Your task to perform on an android device: Open the Play Movies app and select the watchlist tab. Image 0: 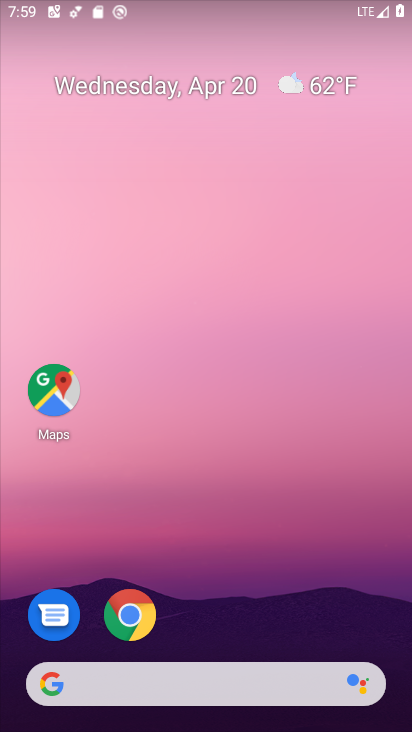
Step 0: drag from (198, 625) to (296, 15)
Your task to perform on an android device: Open the Play Movies app and select the watchlist tab. Image 1: 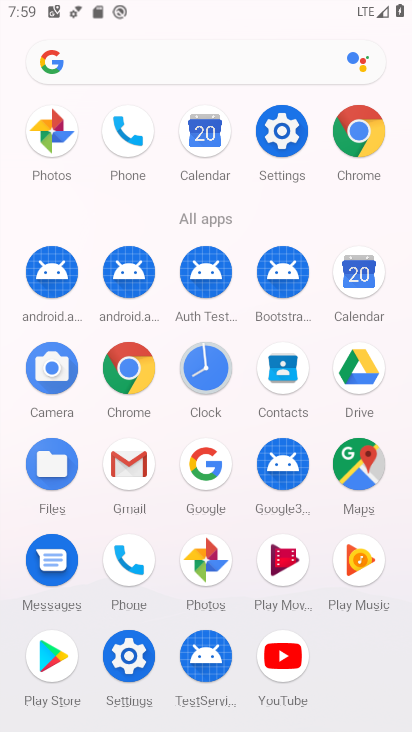
Step 1: click (291, 569)
Your task to perform on an android device: Open the Play Movies app and select the watchlist tab. Image 2: 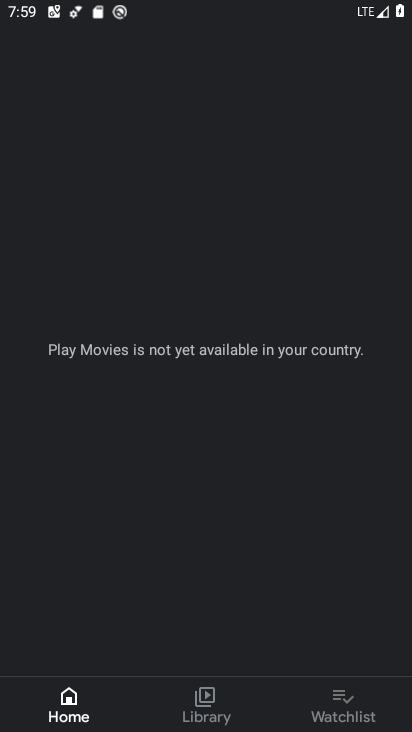
Step 2: click (332, 709)
Your task to perform on an android device: Open the Play Movies app and select the watchlist tab. Image 3: 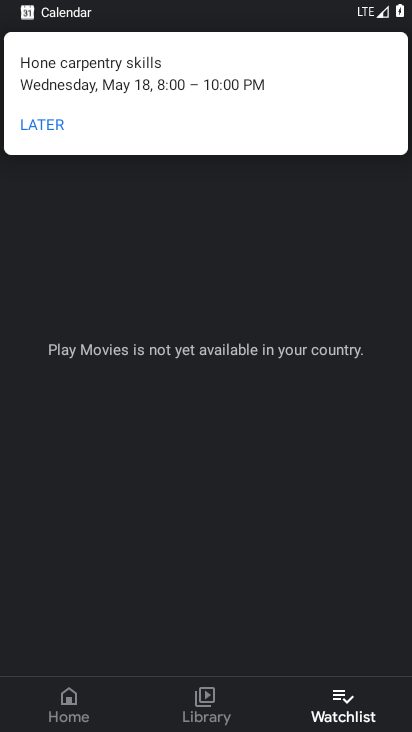
Step 3: task complete